Your task to perform on an android device: Open display settings Image 0: 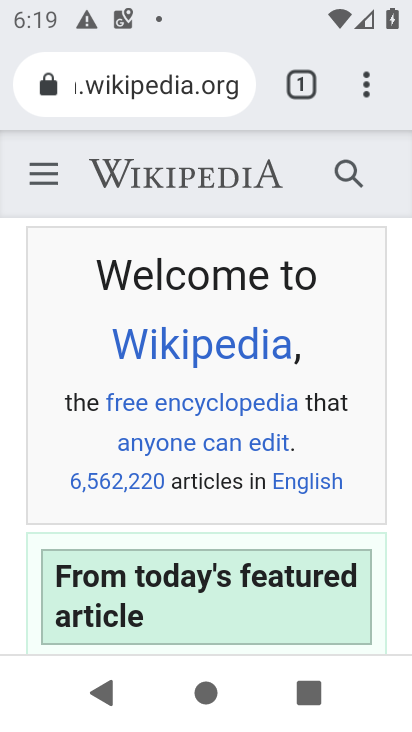
Step 0: press home button
Your task to perform on an android device: Open display settings Image 1: 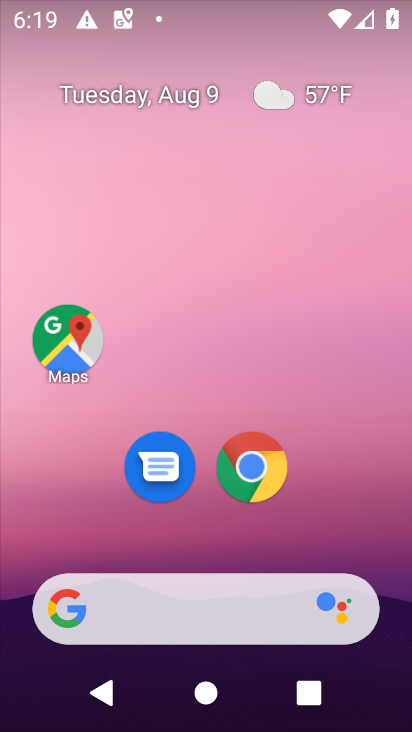
Step 1: drag from (208, 235) to (187, 17)
Your task to perform on an android device: Open display settings Image 2: 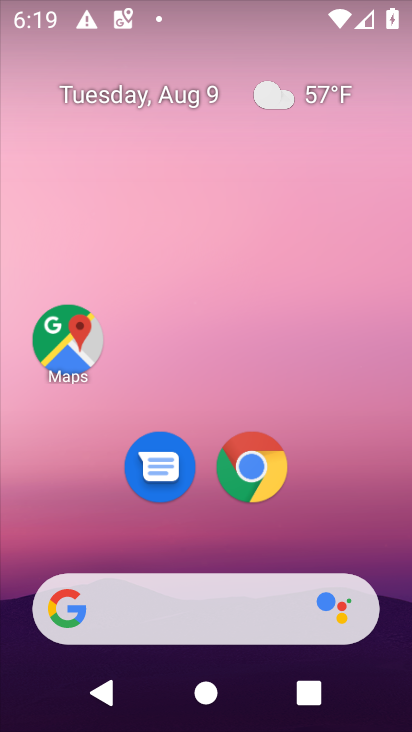
Step 2: drag from (206, 528) to (206, 145)
Your task to perform on an android device: Open display settings Image 3: 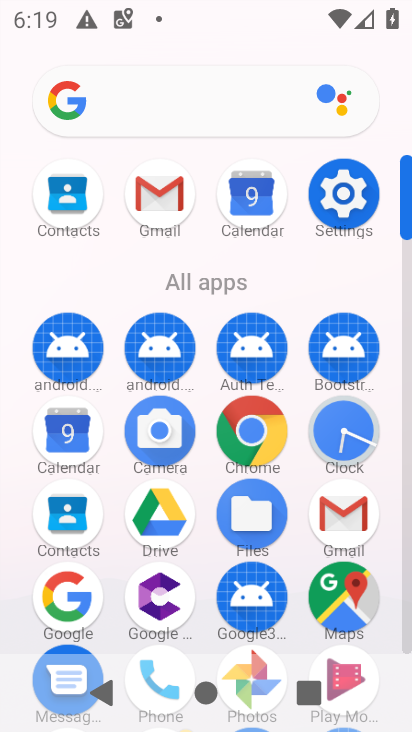
Step 3: click (350, 187)
Your task to perform on an android device: Open display settings Image 4: 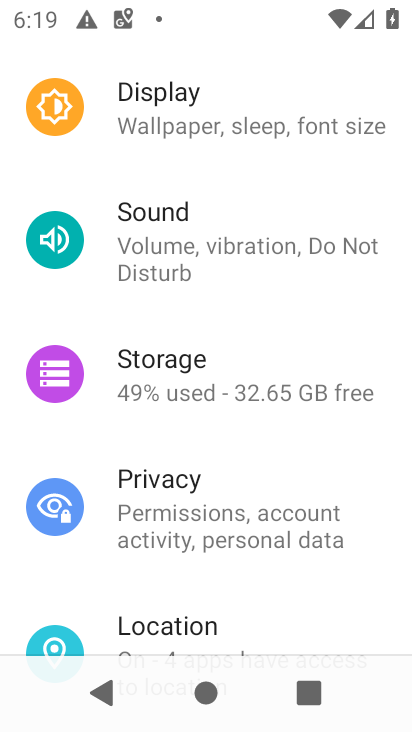
Step 4: click (178, 110)
Your task to perform on an android device: Open display settings Image 5: 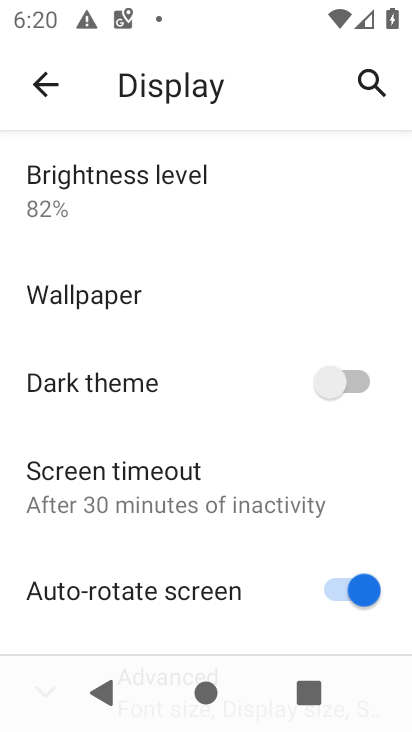
Step 5: task complete